Your task to perform on an android device: open a bookmark in the chrome app Image 0: 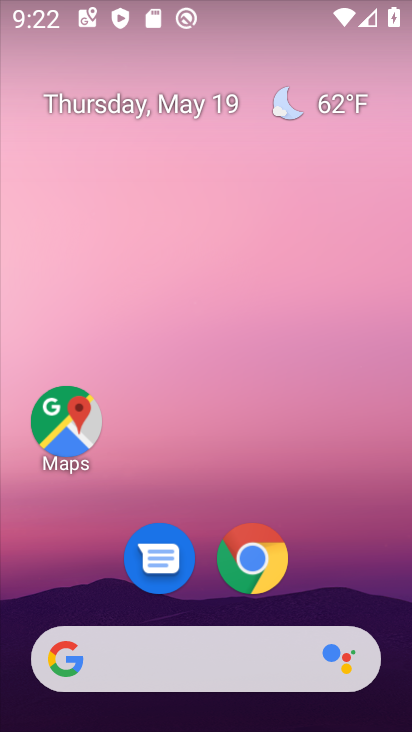
Step 0: click (254, 556)
Your task to perform on an android device: open a bookmark in the chrome app Image 1: 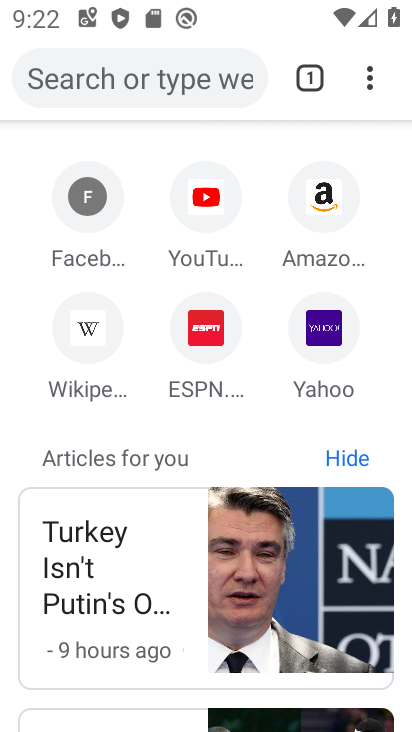
Step 1: click (368, 79)
Your task to perform on an android device: open a bookmark in the chrome app Image 2: 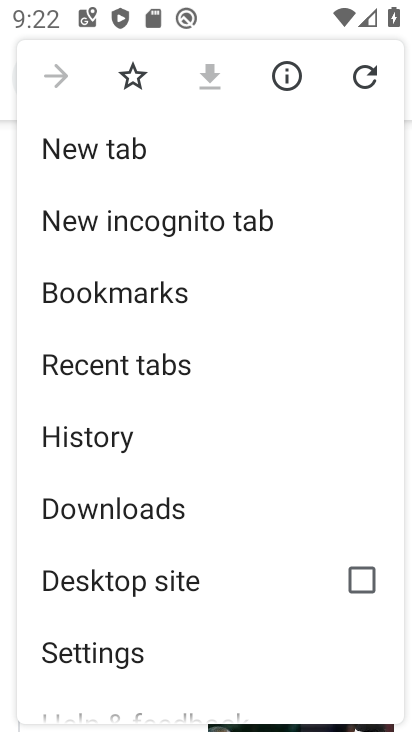
Step 2: click (164, 293)
Your task to perform on an android device: open a bookmark in the chrome app Image 3: 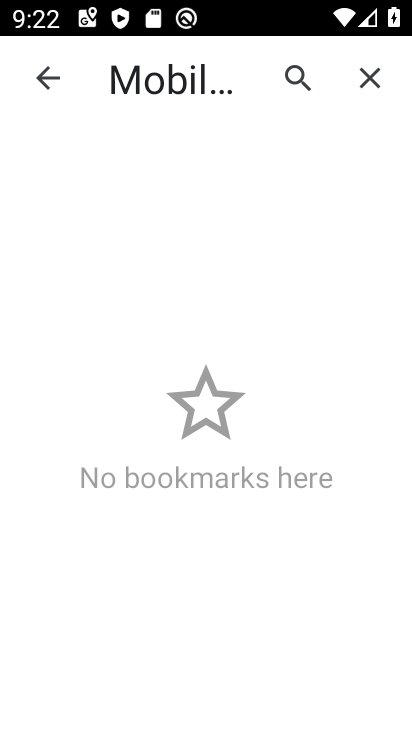
Step 3: task complete